Your task to perform on an android device: snooze an email in the gmail app Image 0: 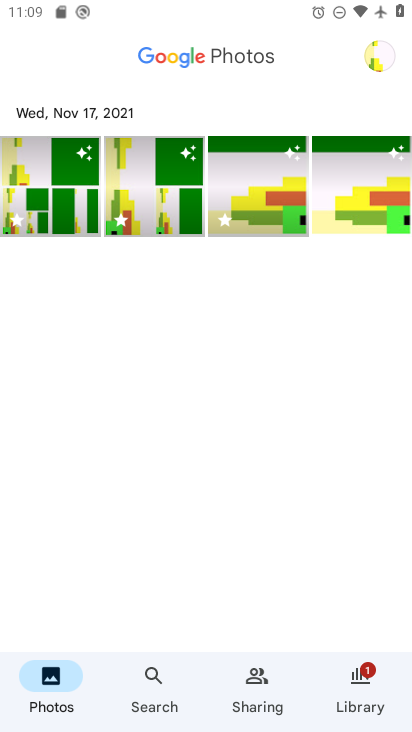
Step 0: press home button
Your task to perform on an android device: snooze an email in the gmail app Image 1: 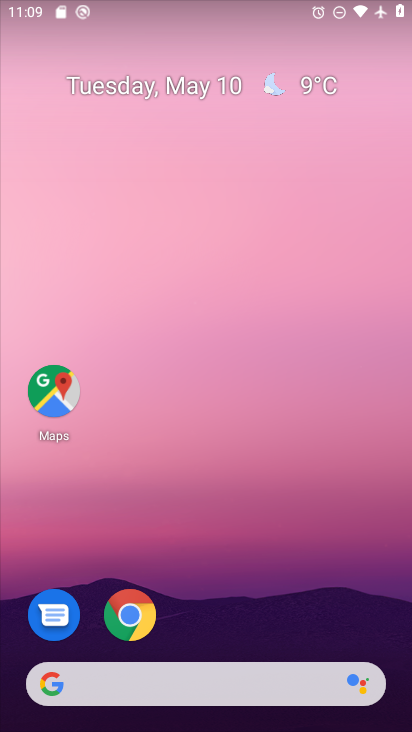
Step 1: drag from (382, 636) to (207, 32)
Your task to perform on an android device: snooze an email in the gmail app Image 2: 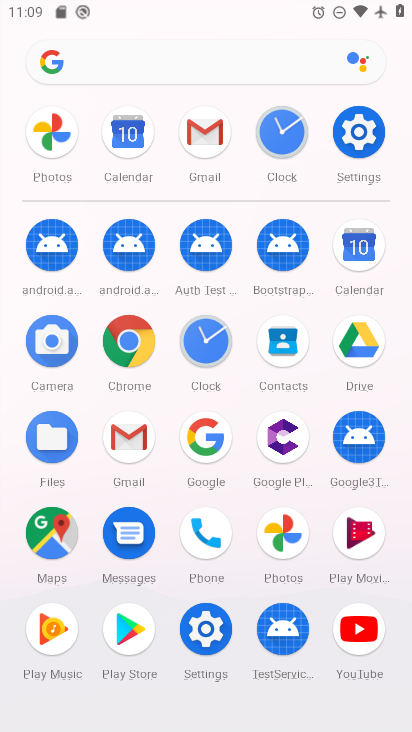
Step 2: click (130, 436)
Your task to perform on an android device: snooze an email in the gmail app Image 3: 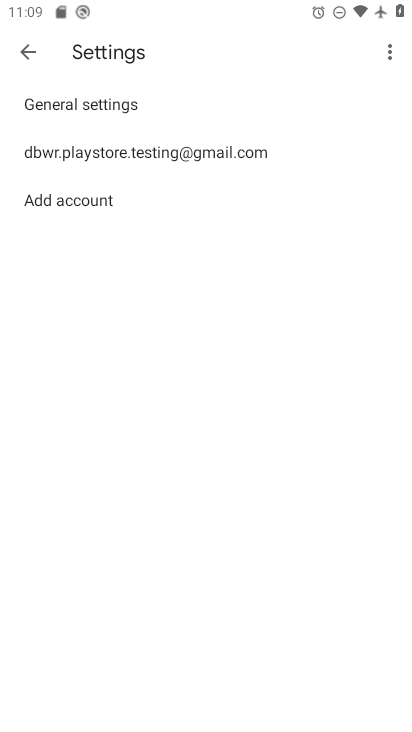
Step 3: press back button
Your task to perform on an android device: snooze an email in the gmail app Image 4: 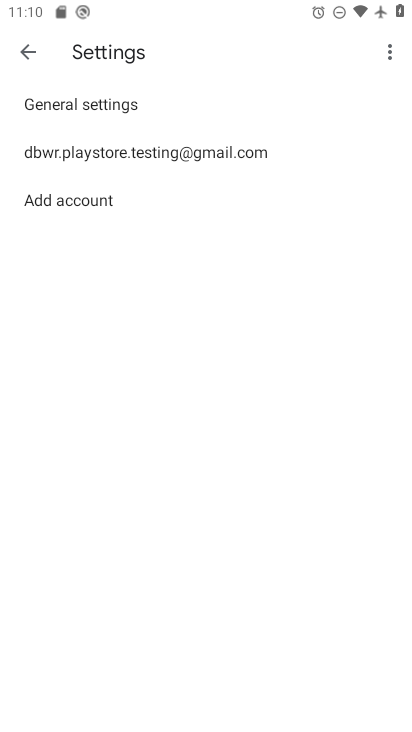
Step 4: press back button
Your task to perform on an android device: snooze an email in the gmail app Image 5: 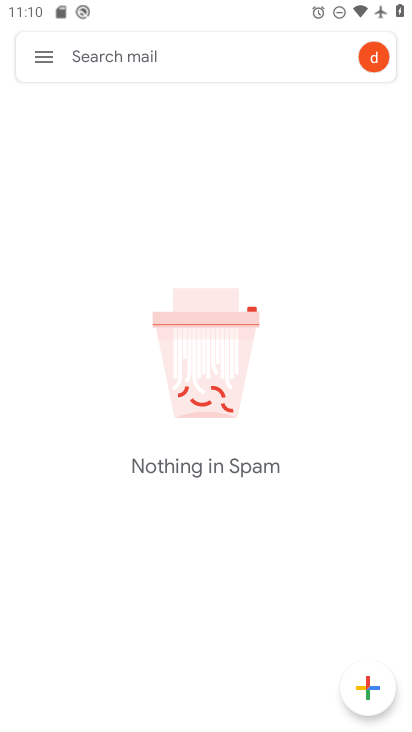
Step 5: click (42, 55)
Your task to perform on an android device: snooze an email in the gmail app Image 6: 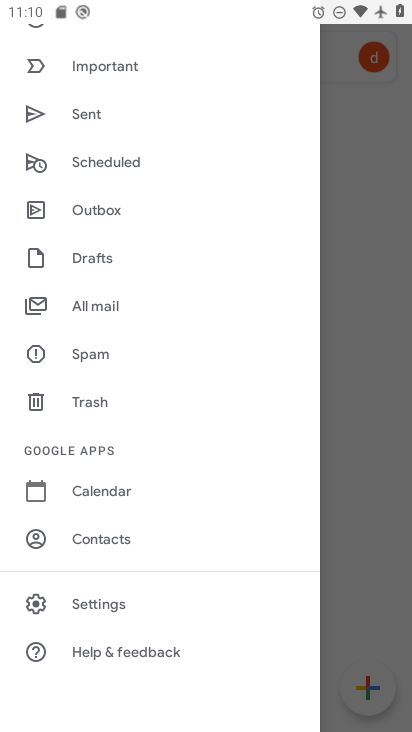
Step 6: click (83, 303)
Your task to perform on an android device: snooze an email in the gmail app Image 7: 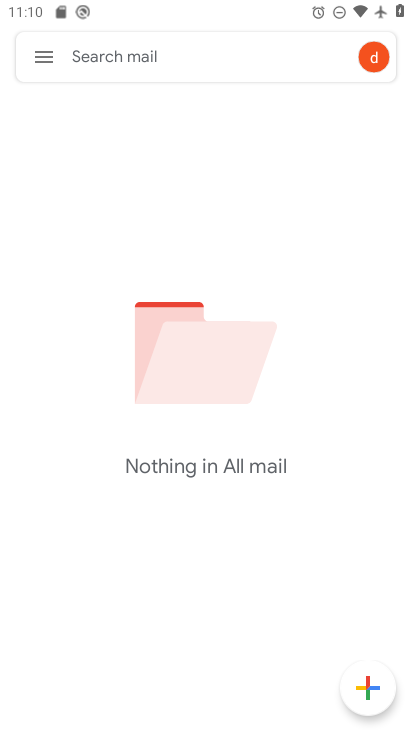
Step 7: task complete